Your task to perform on an android device: turn off notifications settings in the gmail app Image 0: 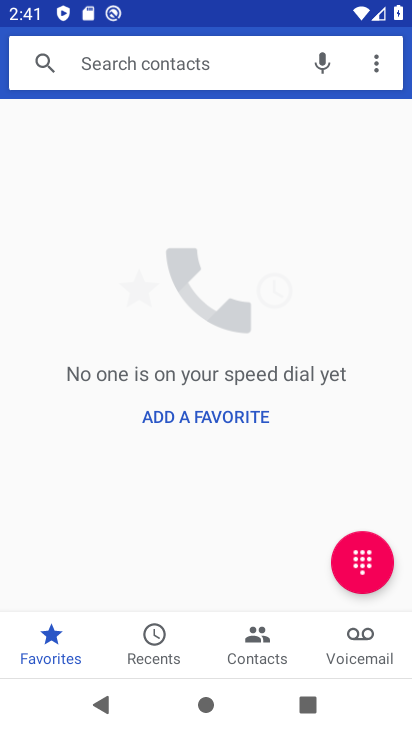
Step 0: press home button
Your task to perform on an android device: turn off notifications settings in the gmail app Image 1: 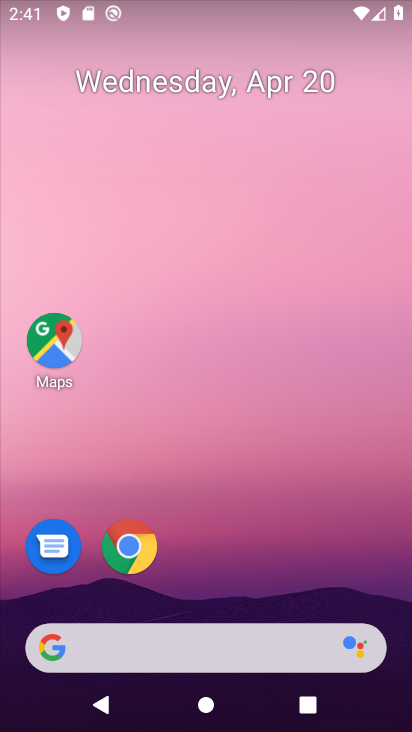
Step 1: drag from (219, 568) to (256, 134)
Your task to perform on an android device: turn off notifications settings in the gmail app Image 2: 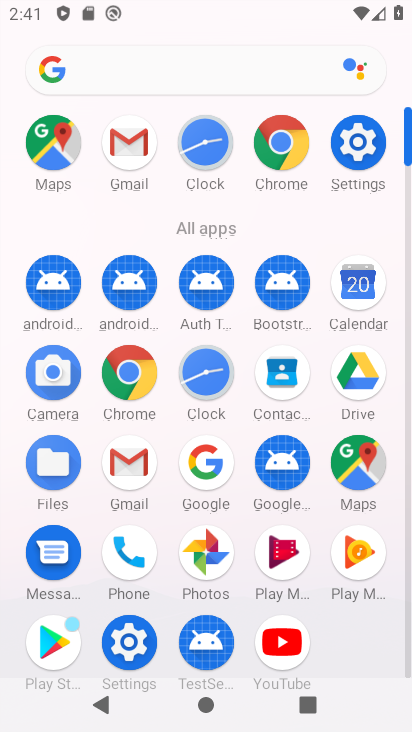
Step 2: click (139, 471)
Your task to perform on an android device: turn off notifications settings in the gmail app Image 3: 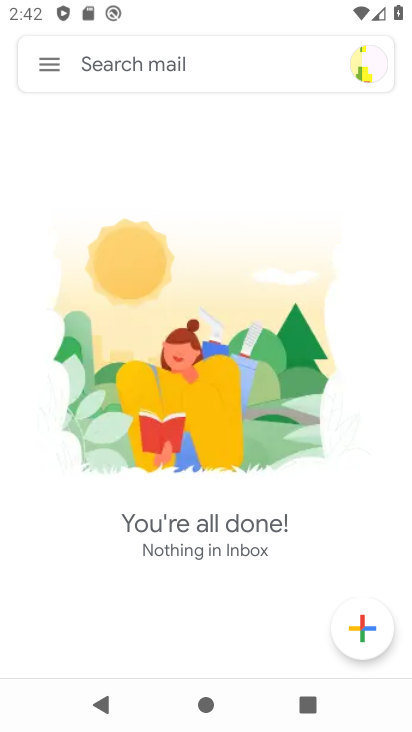
Step 3: click (41, 71)
Your task to perform on an android device: turn off notifications settings in the gmail app Image 4: 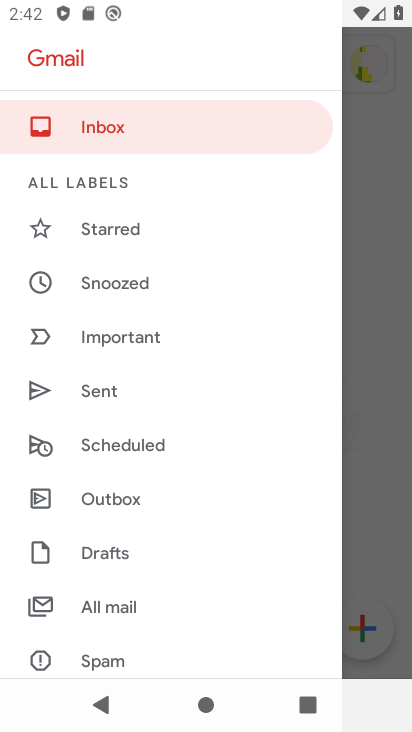
Step 4: drag from (164, 630) to (198, 230)
Your task to perform on an android device: turn off notifications settings in the gmail app Image 5: 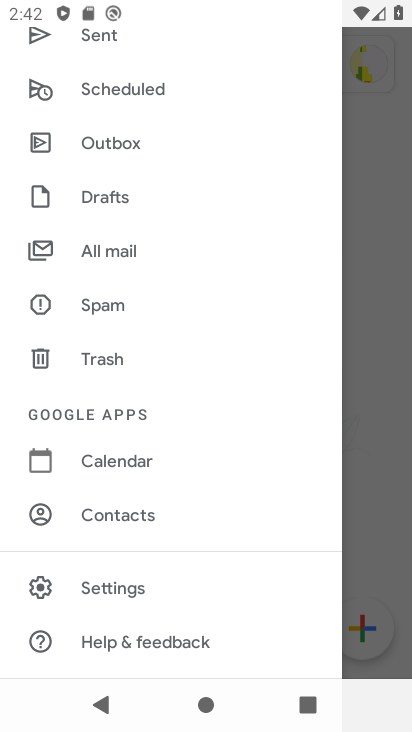
Step 5: click (127, 583)
Your task to perform on an android device: turn off notifications settings in the gmail app Image 6: 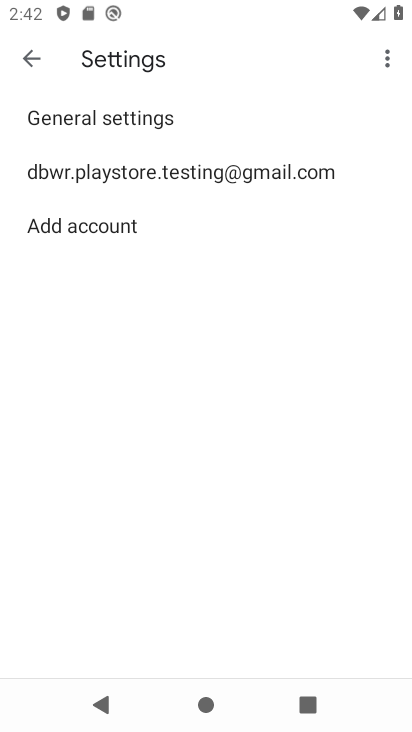
Step 6: click (147, 165)
Your task to perform on an android device: turn off notifications settings in the gmail app Image 7: 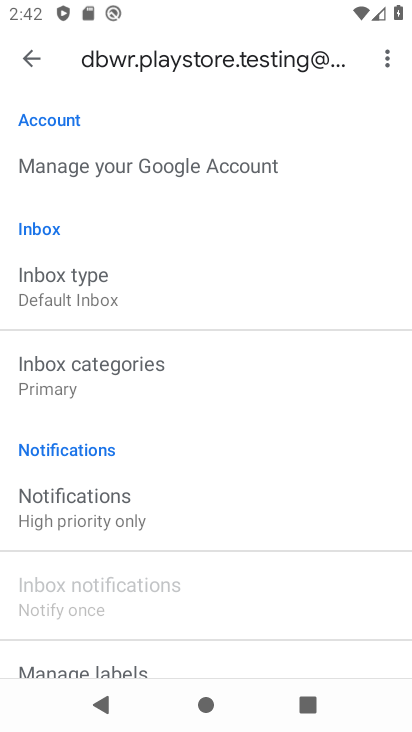
Step 7: click (117, 514)
Your task to perform on an android device: turn off notifications settings in the gmail app Image 8: 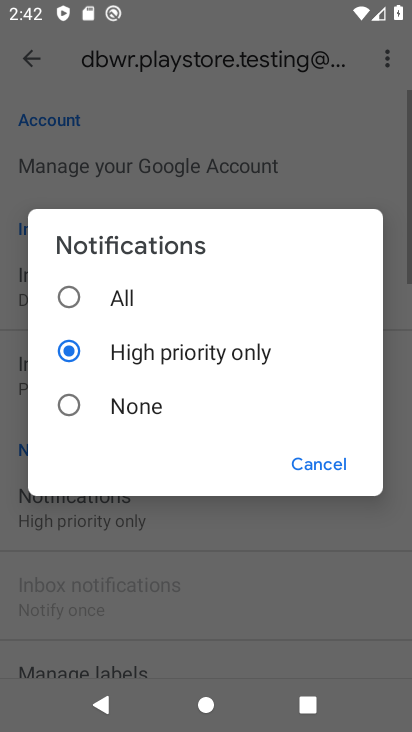
Step 8: click (155, 403)
Your task to perform on an android device: turn off notifications settings in the gmail app Image 9: 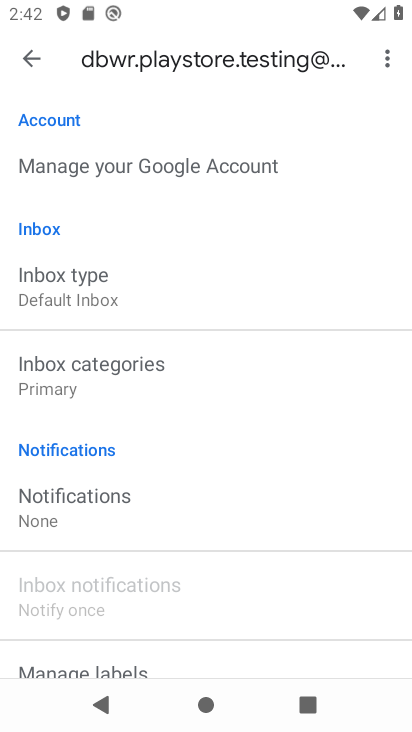
Step 9: task complete